Your task to perform on an android device: toggle priority inbox in the gmail app Image 0: 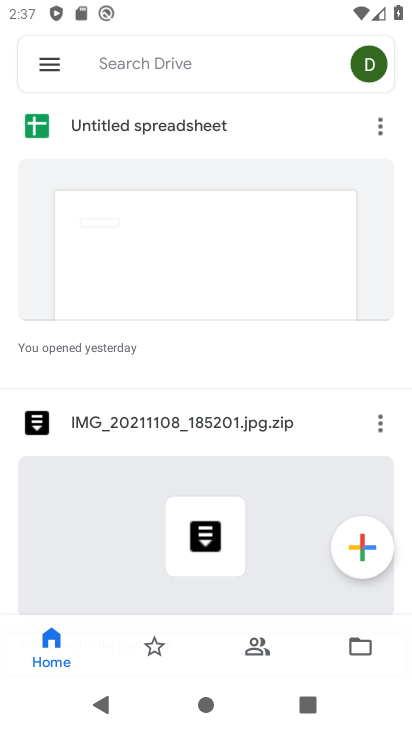
Step 0: press home button
Your task to perform on an android device: toggle priority inbox in the gmail app Image 1: 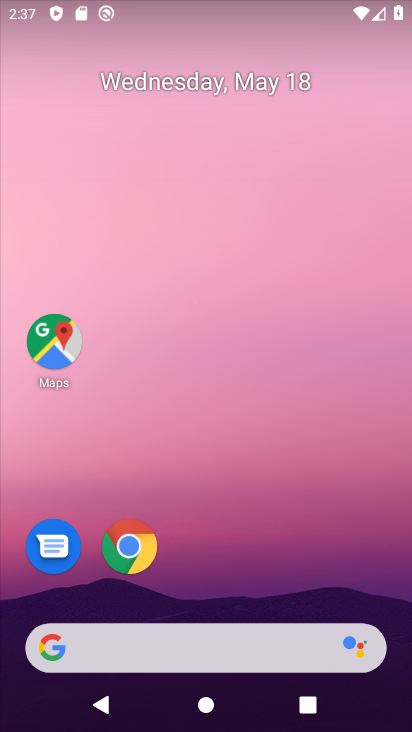
Step 1: drag from (260, 570) to (331, 148)
Your task to perform on an android device: toggle priority inbox in the gmail app Image 2: 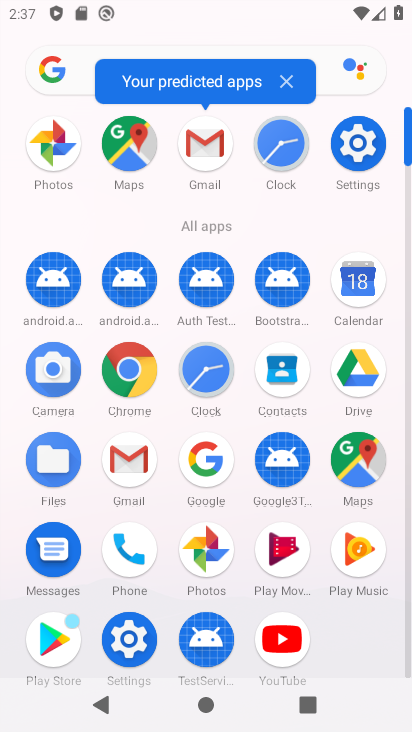
Step 2: click (132, 464)
Your task to perform on an android device: toggle priority inbox in the gmail app Image 3: 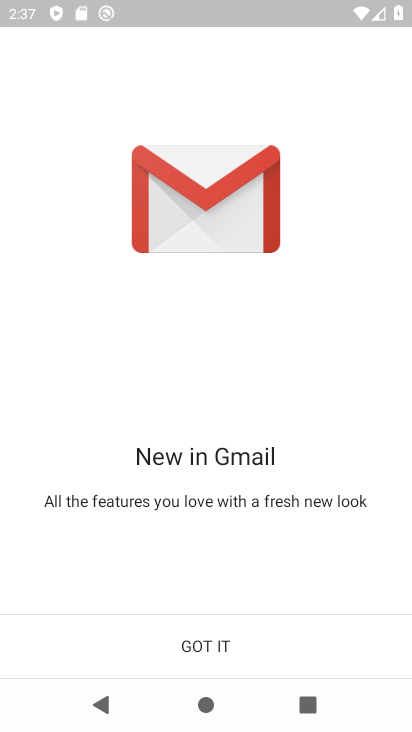
Step 3: click (228, 646)
Your task to perform on an android device: toggle priority inbox in the gmail app Image 4: 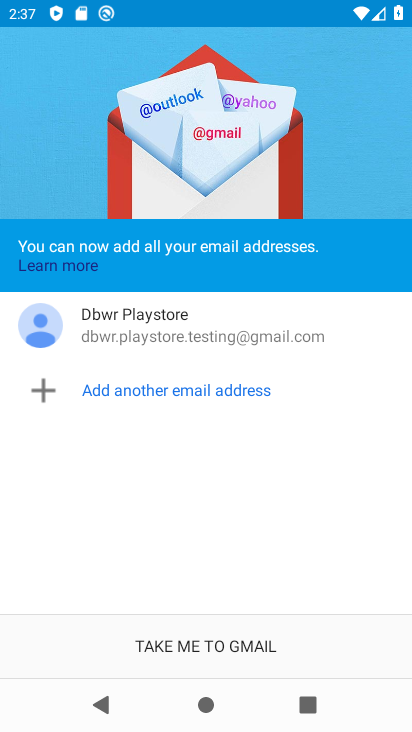
Step 4: click (228, 647)
Your task to perform on an android device: toggle priority inbox in the gmail app Image 5: 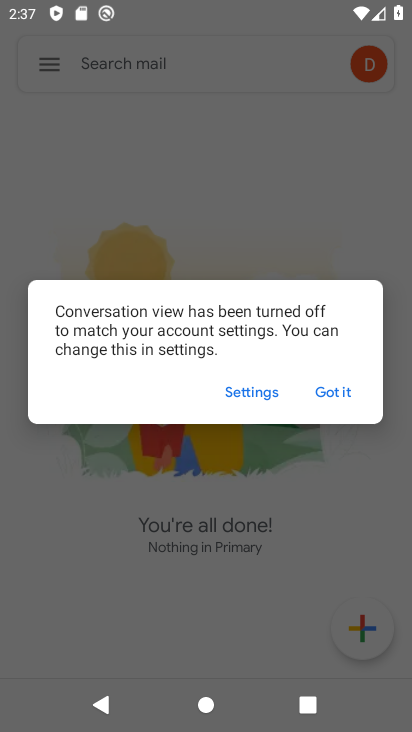
Step 5: click (344, 405)
Your task to perform on an android device: toggle priority inbox in the gmail app Image 6: 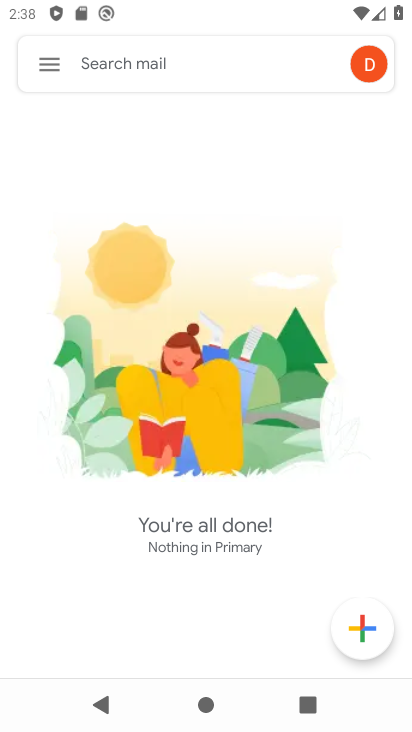
Step 6: click (58, 70)
Your task to perform on an android device: toggle priority inbox in the gmail app Image 7: 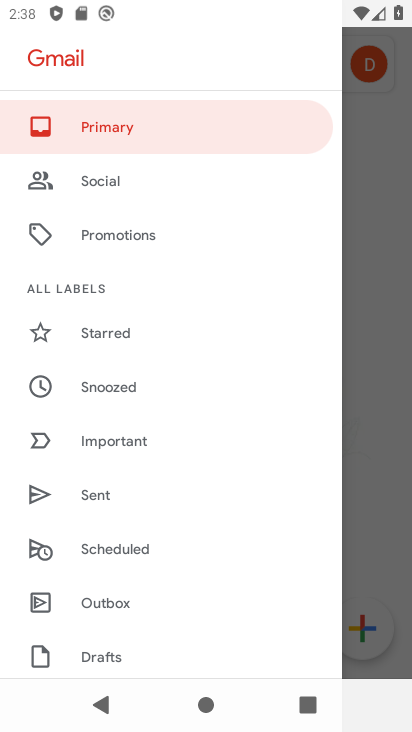
Step 7: drag from (148, 587) to (283, 282)
Your task to perform on an android device: toggle priority inbox in the gmail app Image 8: 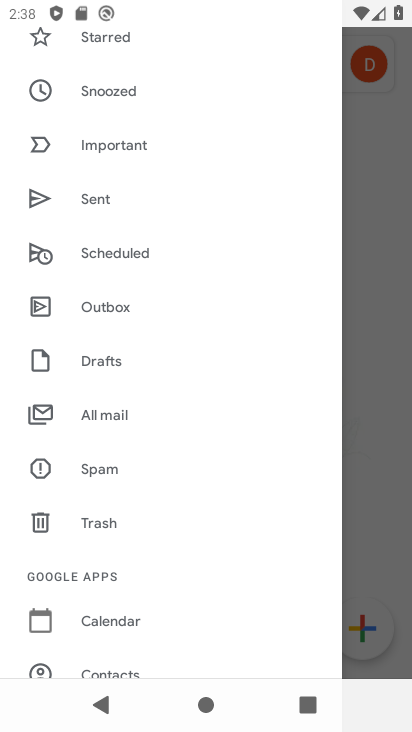
Step 8: drag from (130, 576) to (230, 294)
Your task to perform on an android device: toggle priority inbox in the gmail app Image 9: 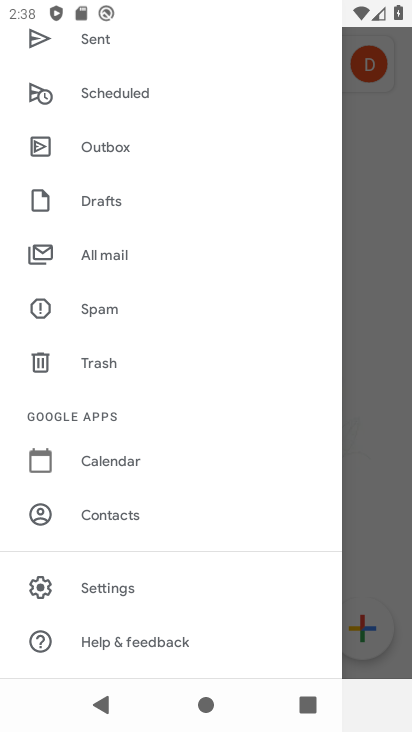
Step 9: click (159, 581)
Your task to perform on an android device: toggle priority inbox in the gmail app Image 10: 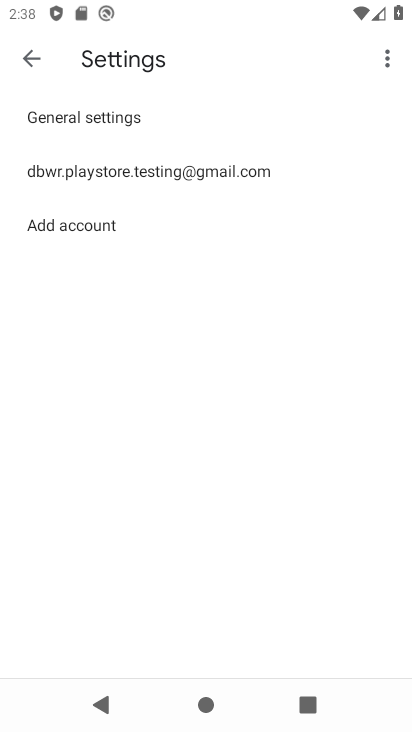
Step 10: click (197, 170)
Your task to perform on an android device: toggle priority inbox in the gmail app Image 11: 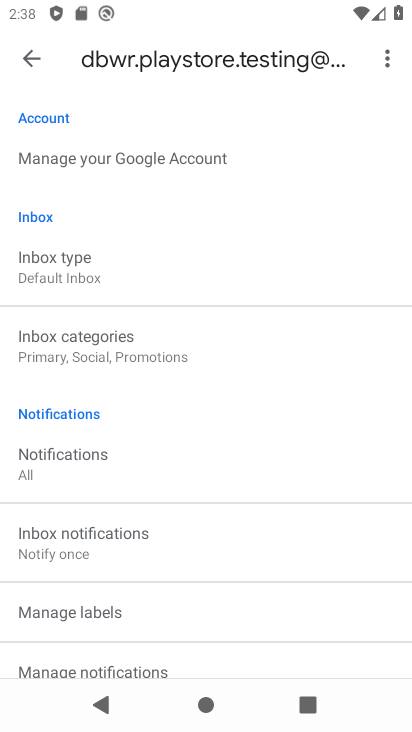
Step 11: click (170, 270)
Your task to perform on an android device: toggle priority inbox in the gmail app Image 12: 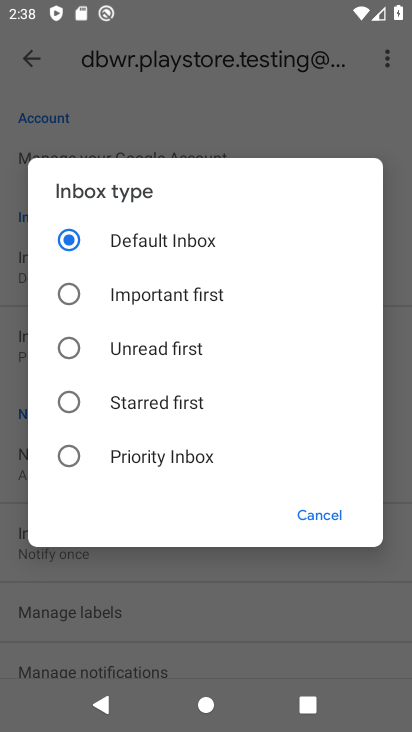
Step 12: click (238, 475)
Your task to perform on an android device: toggle priority inbox in the gmail app Image 13: 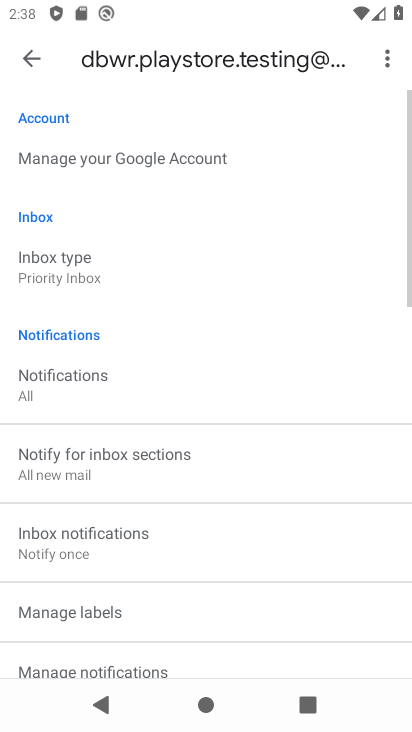
Step 13: task complete